Your task to perform on an android device: change the upload size in google photos Image 0: 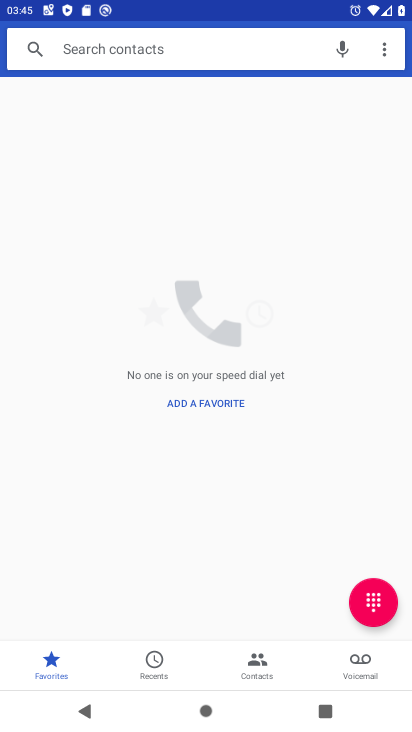
Step 0: press home button
Your task to perform on an android device: change the upload size in google photos Image 1: 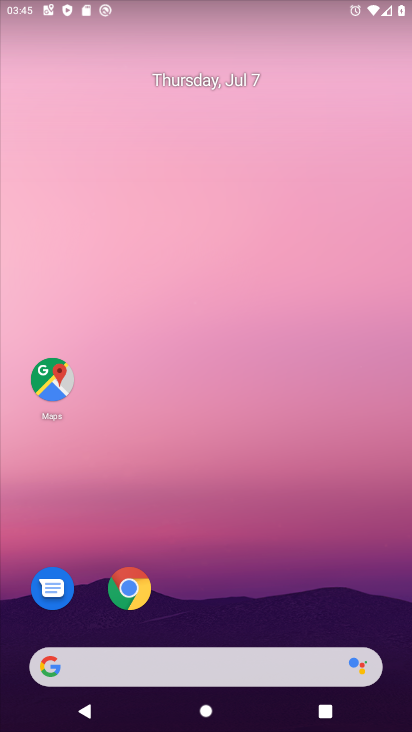
Step 1: drag from (188, 642) to (166, 278)
Your task to perform on an android device: change the upload size in google photos Image 2: 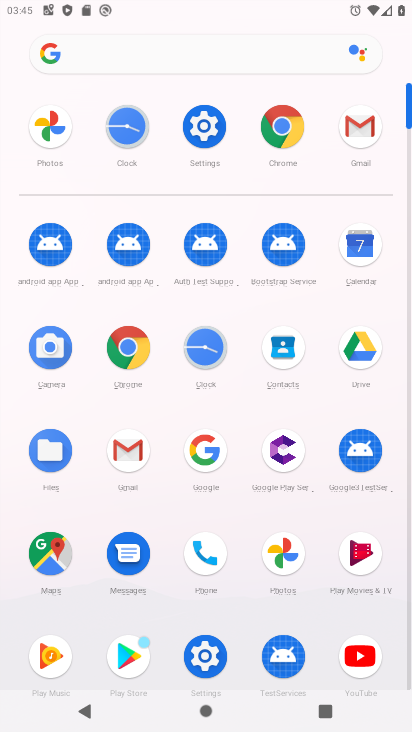
Step 2: click (294, 554)
Your task to perform on an android device: change the upload size in google photos Image 3: 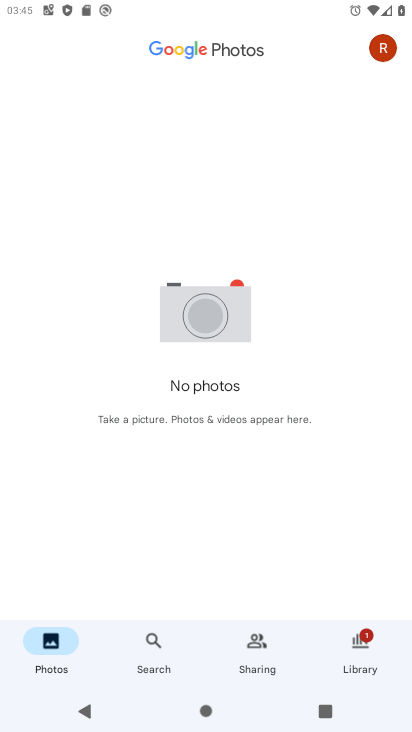
Step 3: click (379, 49)
Your task to perform on an android device: change the upload size in google photos Image 4: 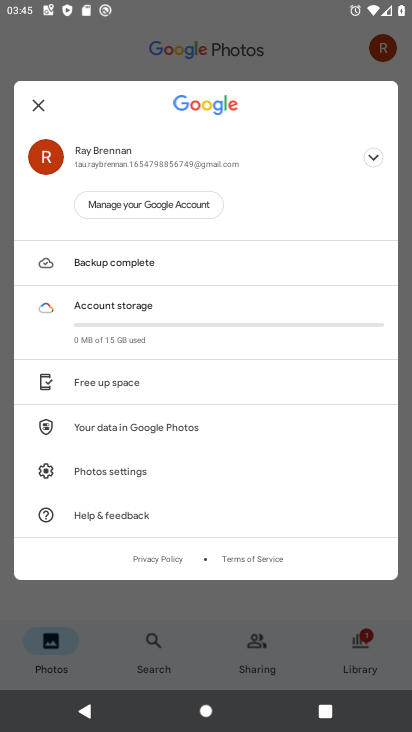
Step 4: click (107, 474)
Your task to perform on an android device: change the upload size in google photos Image 5: 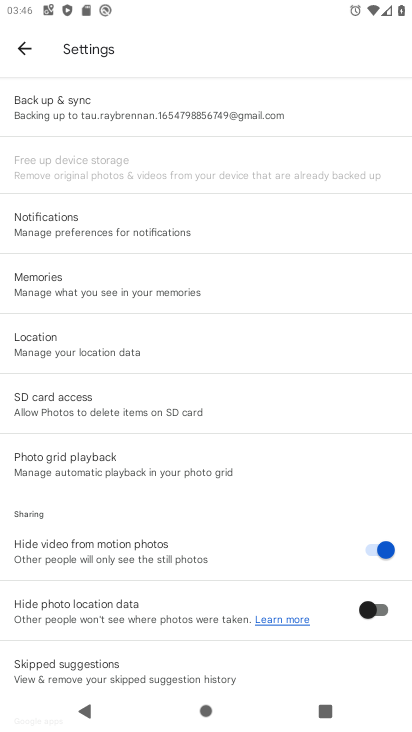
Step 5: click (57, 114)
Your task to perform on an android device: change the upload size in google photos Image 6: 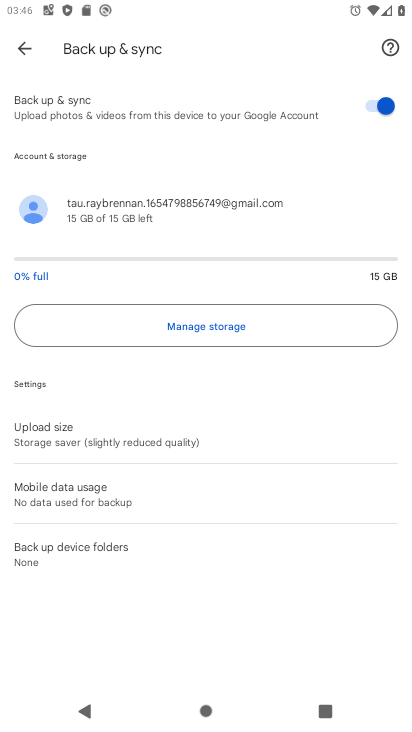
Step 6: click (55, 438)
Your task to perform on an android device: change the upload size in google photos Image 7: 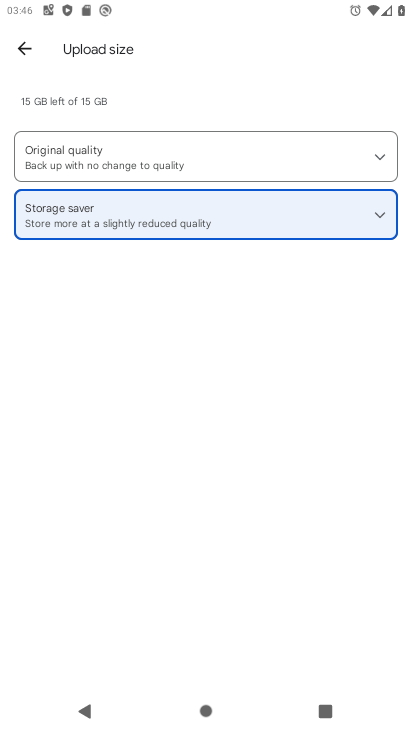
Step 7: click (60, 156)
Your task to perform on an android device: change the upload size in google photos Image 8: 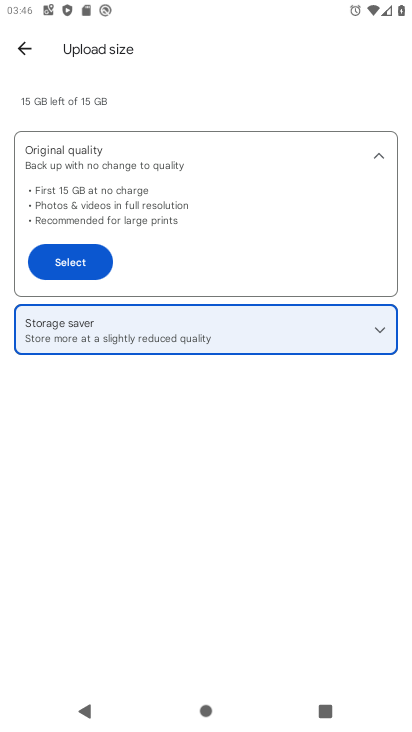
Step 8: click (69, 262)
Your task to perform on an android device: change the upload size in google photos Image 9: 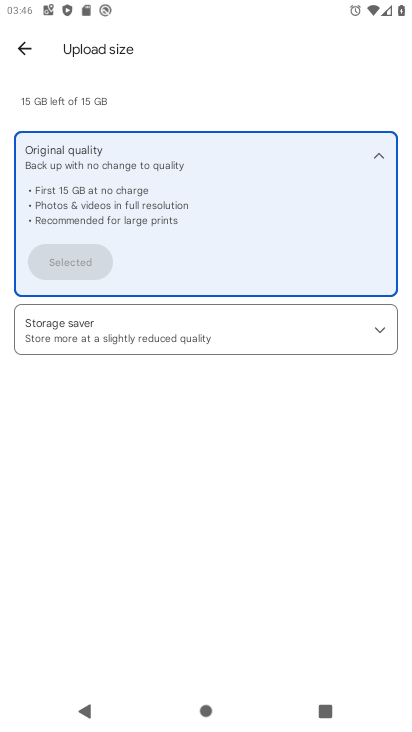
Step 9: task complete